Your task to perform on an android device: open app "Grab" Image 0: 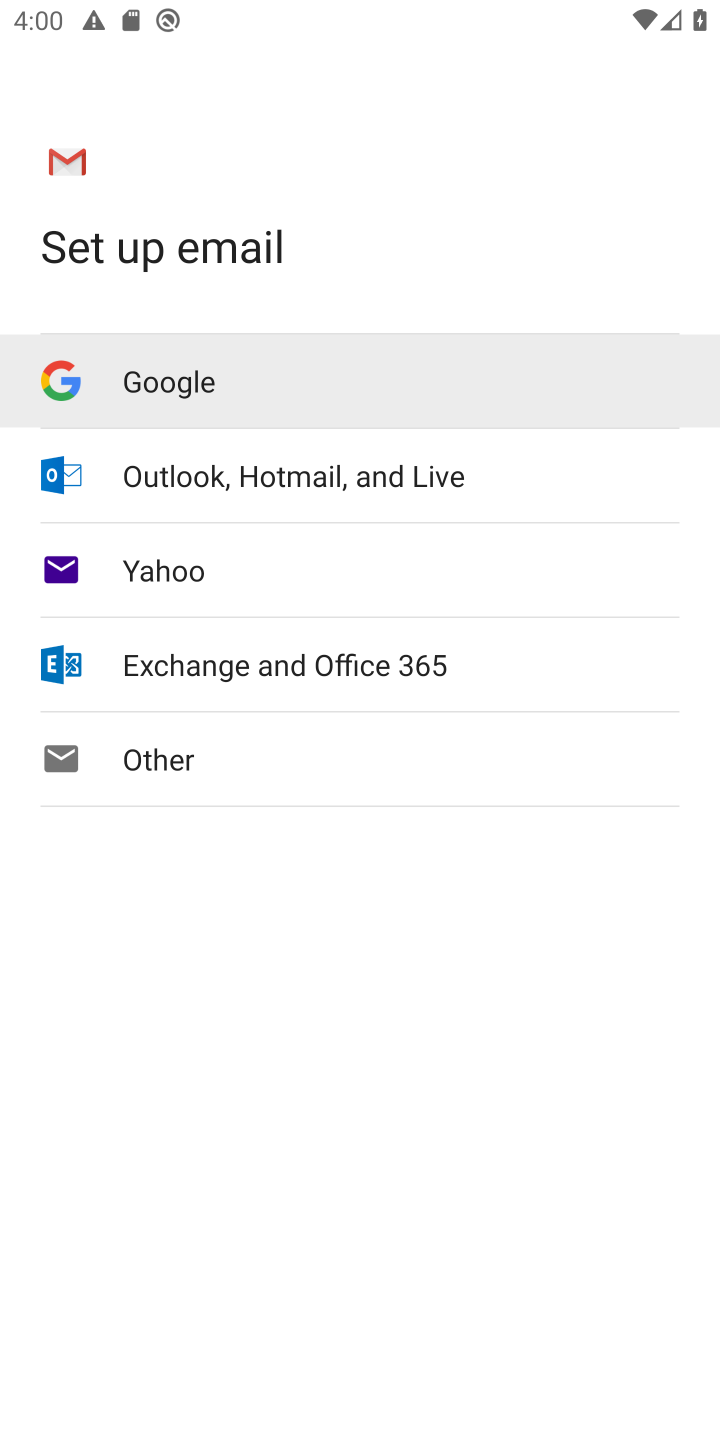
Step 0: press home button
Your task to perform on an android device: open app "Grab" Image 1: 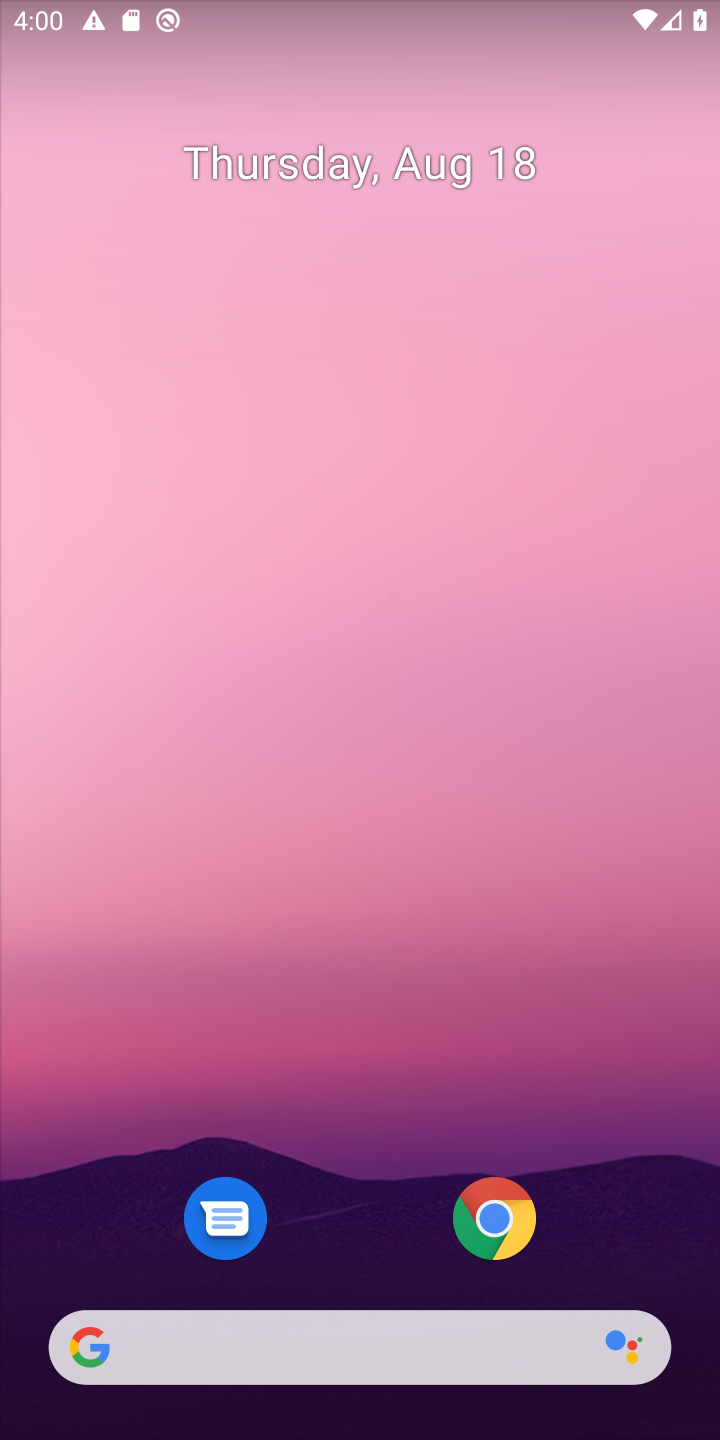
Step 1: drag from (318, 1092) to (323, 439)
Your task to perform on an android device: open app "Grab" Image 2: 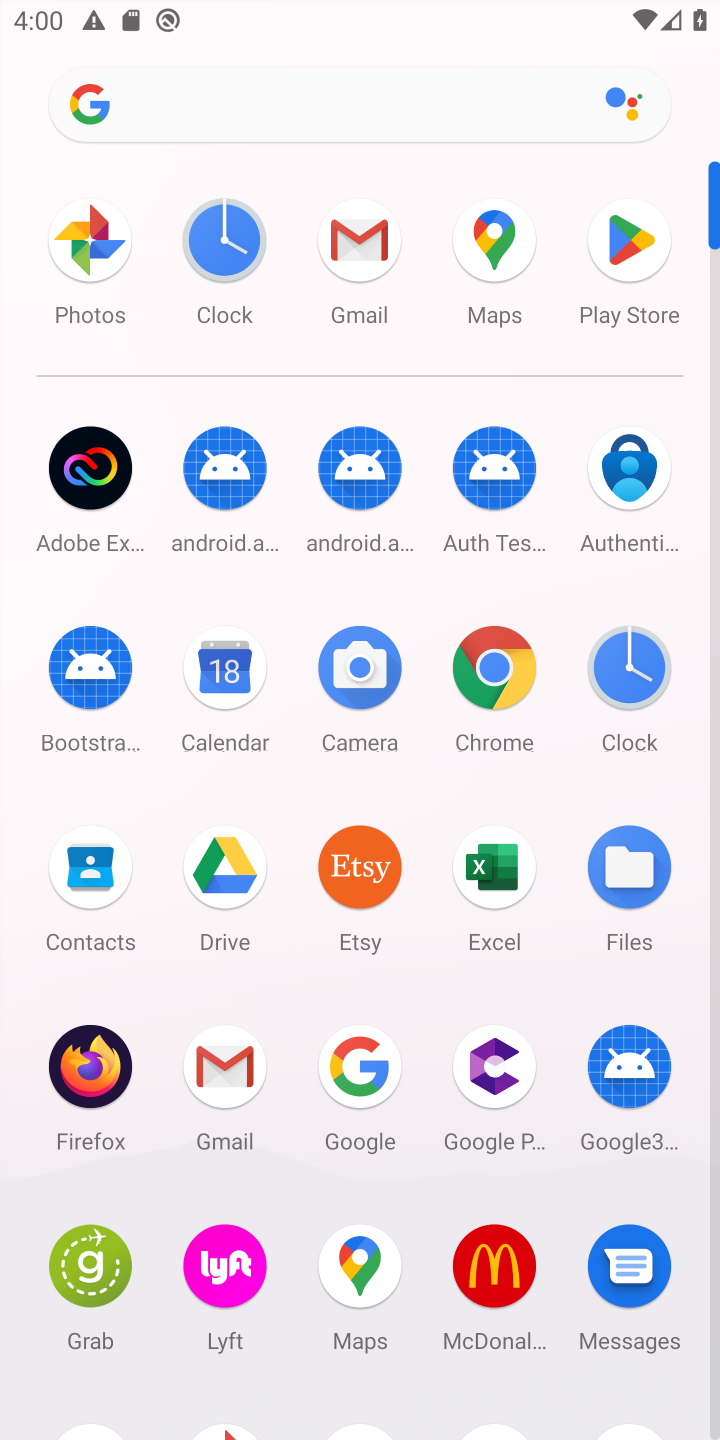
Step 2: click (620, 250)
Your task to perform on an android device: open app "Grab" Image 3: 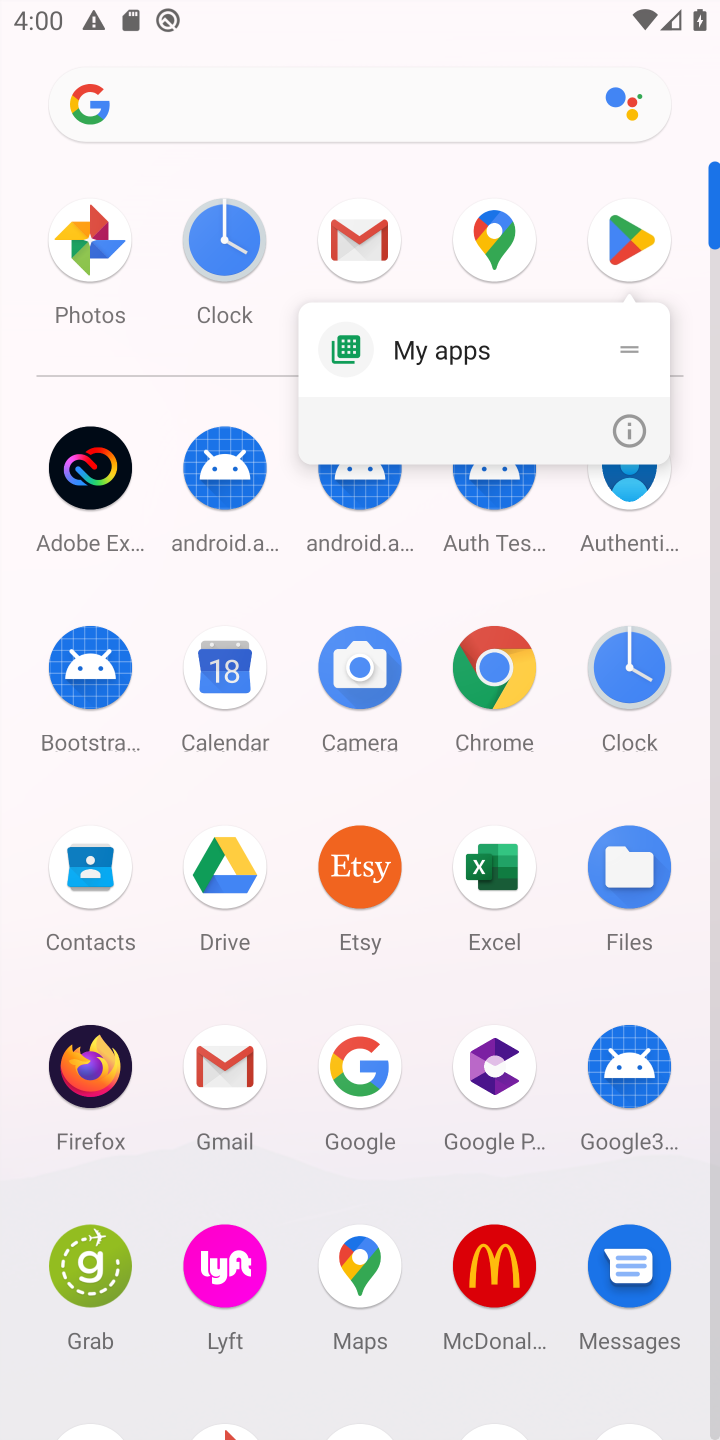
Step 3: click (626, 236)
Your task to perform on an android device: open app "Grab" Image 4: 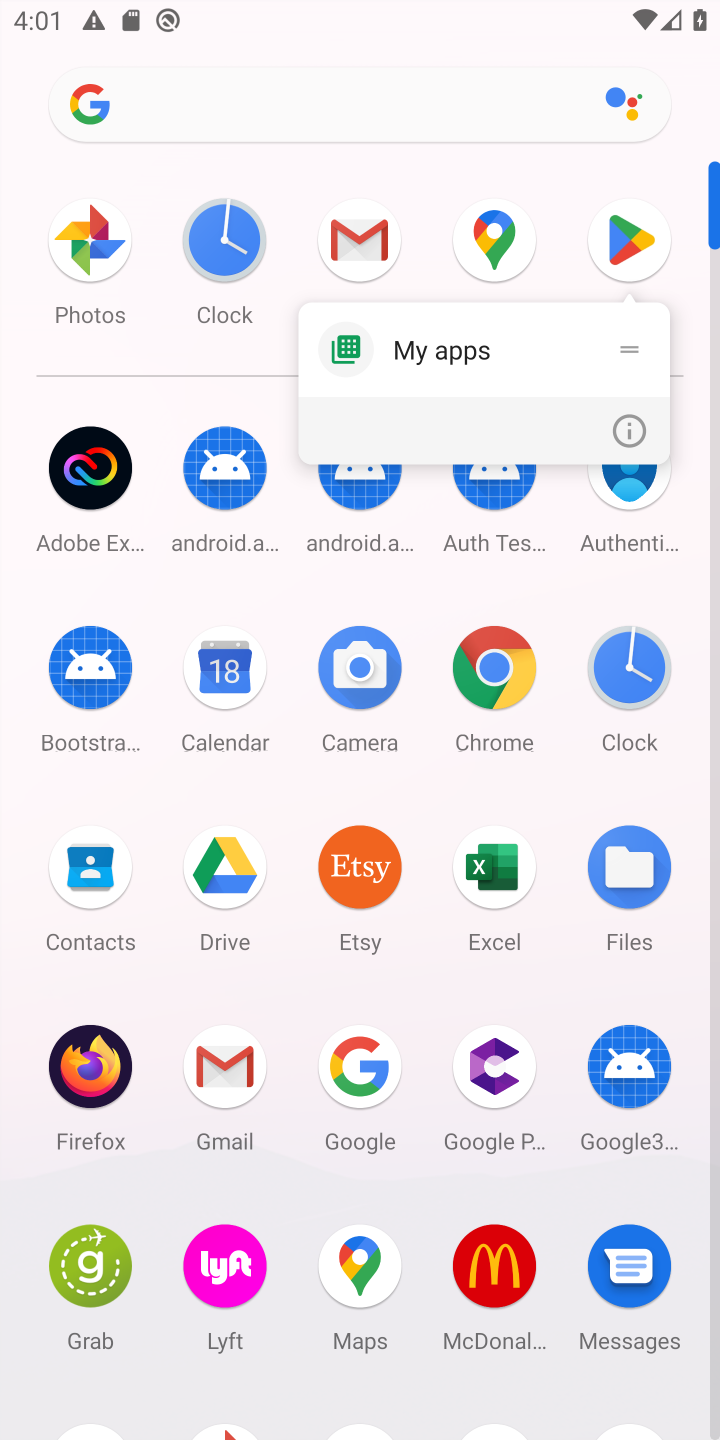
Step 4: click (619, 208)
Your task to perform on an android device: open app "Grab" Image 5: 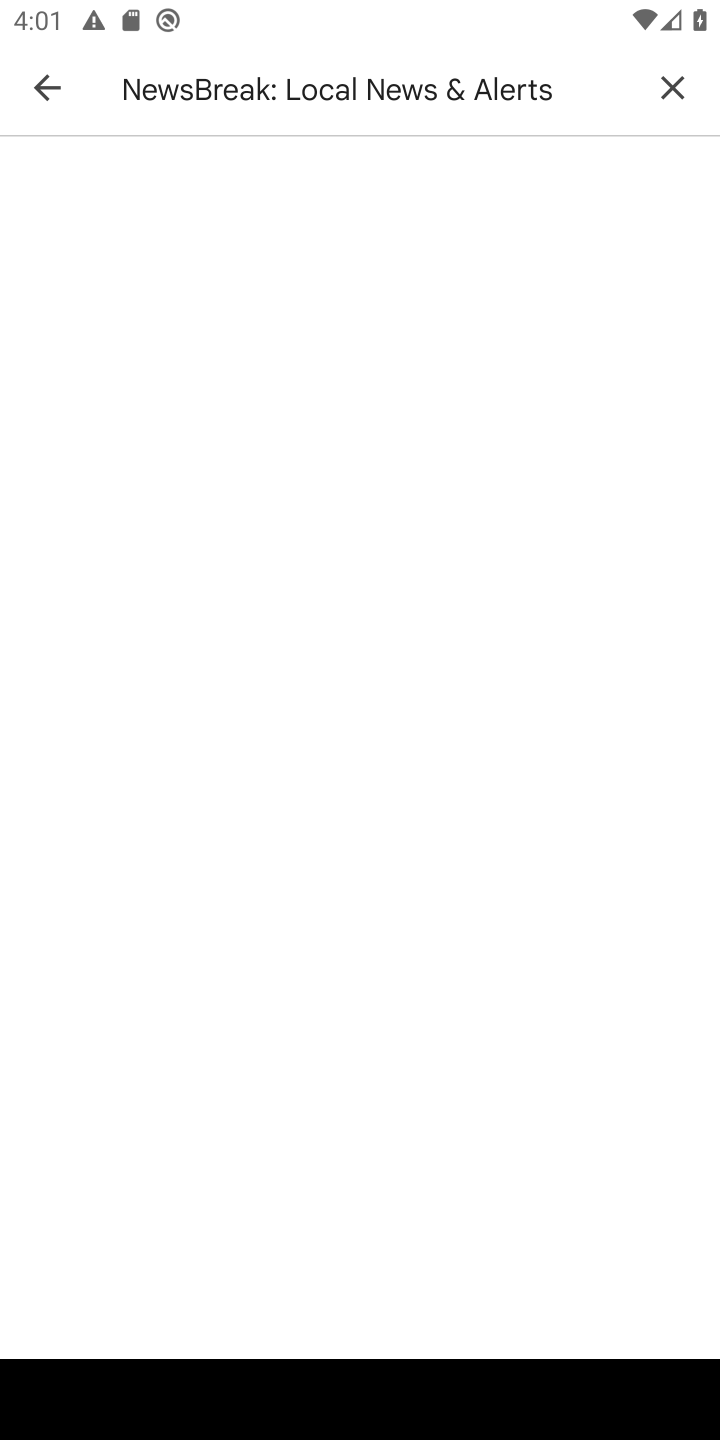
Step 5: click (665, 87)
Your task to perform on an android device: open app "Grab" Image 6: 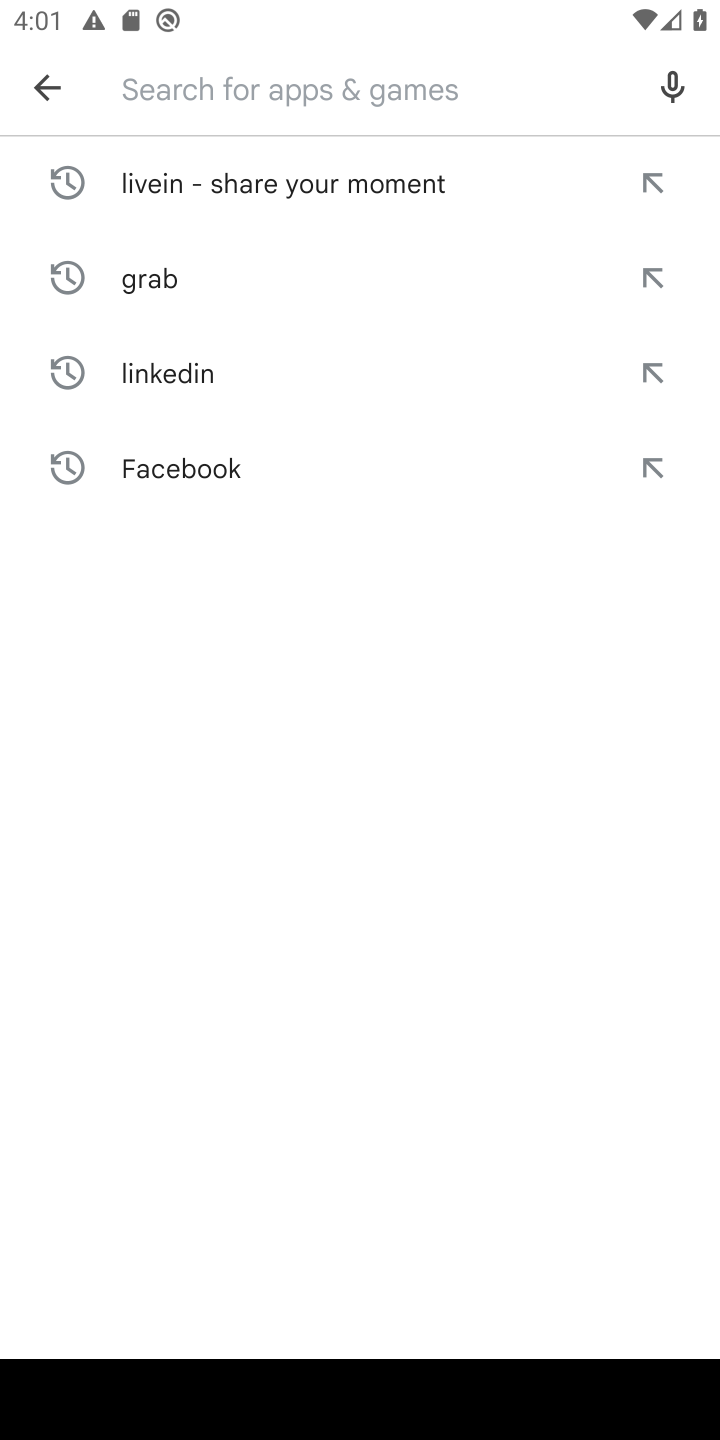
Step 6: type "Grab"
Your task to perform on an android device: open app "Grab" Image 7: 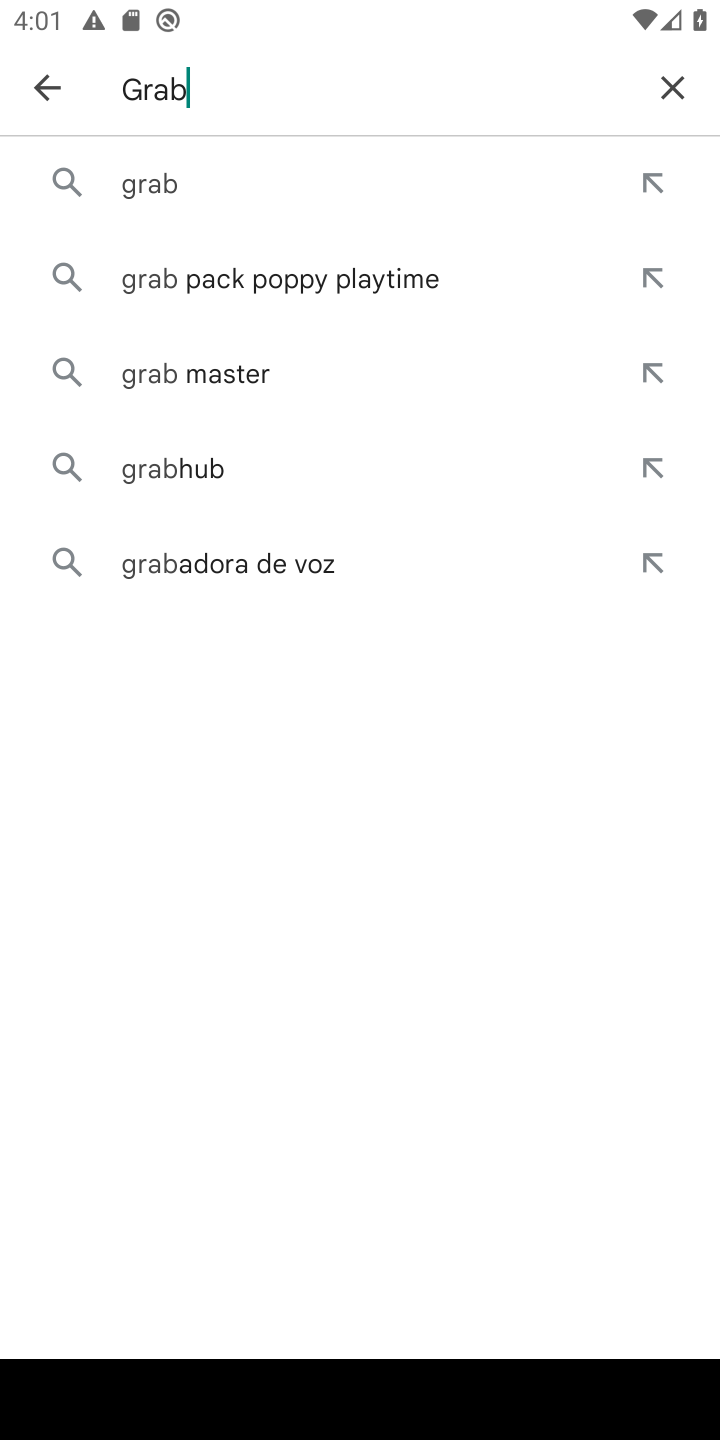
Step 7: click (188, 195)
Your task to perform on an android device: open app "Grab" Image 8: 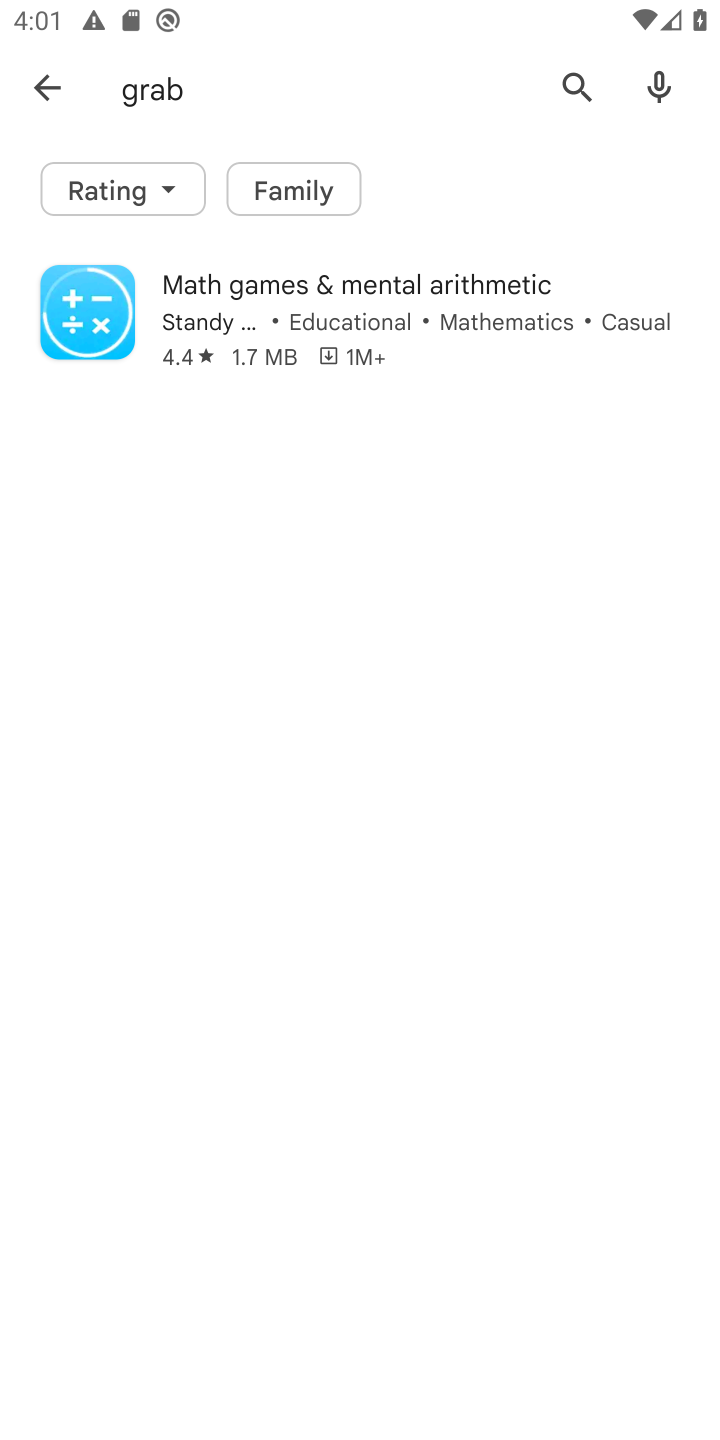
Step 8: task complete